Your task to perform on an android device: turn on sleep mode Image 0: 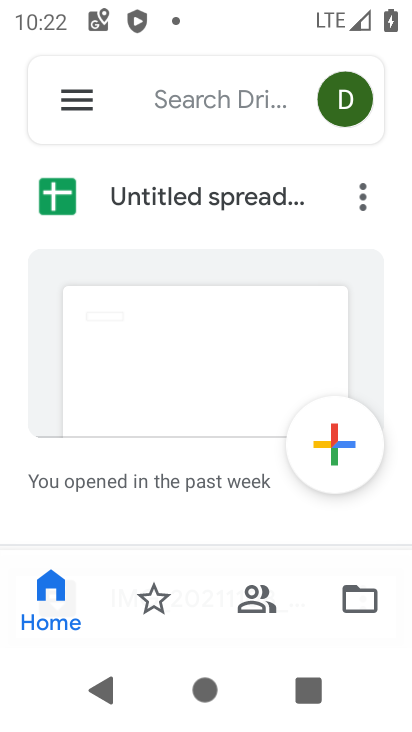
Step 0: press home button
Your task to perform on an android device: turn on sleep mode Image 1: 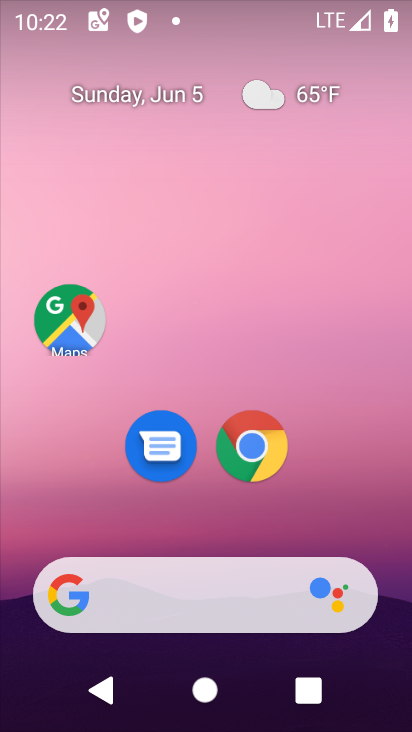
Step 1: drag from (212, 536) to (188, 160)
Your task to perform on an android device: turn on sleep mode Image 2: 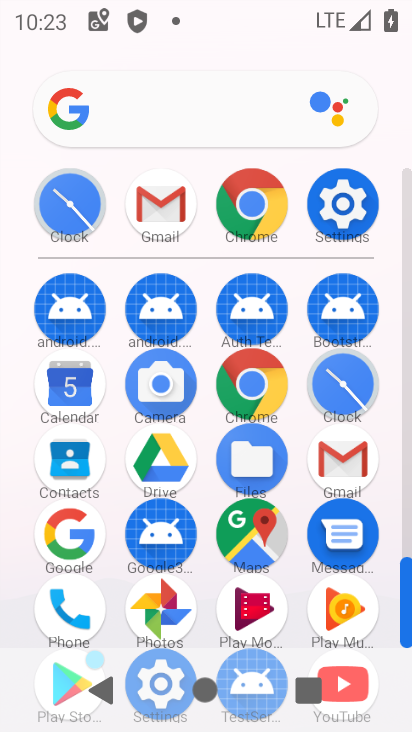
Step 2: click (344, 207)
Your task to perform on an android device: turn on sleep mode Image 3: 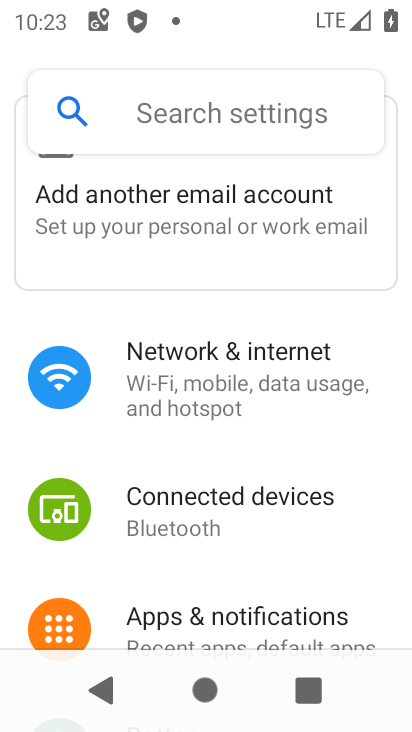
Step 3: drag from (221, 570) to (212, 382)
Your task to perform on an android device: turn on sleep mode Image 4: 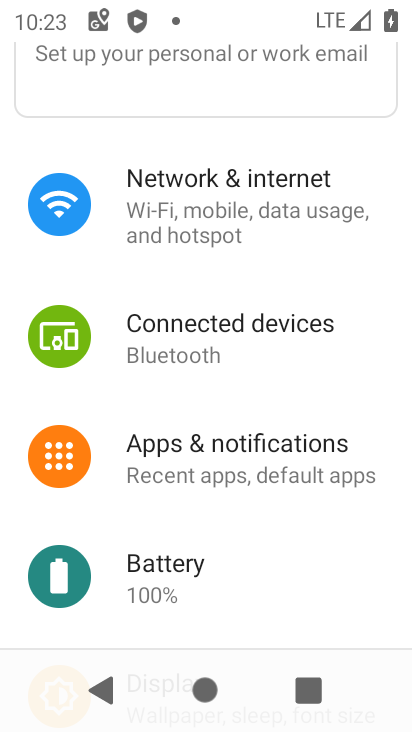
Step 4: click (190, 227)
Your task to perform on an android device: turn on sleep mode Image 5: 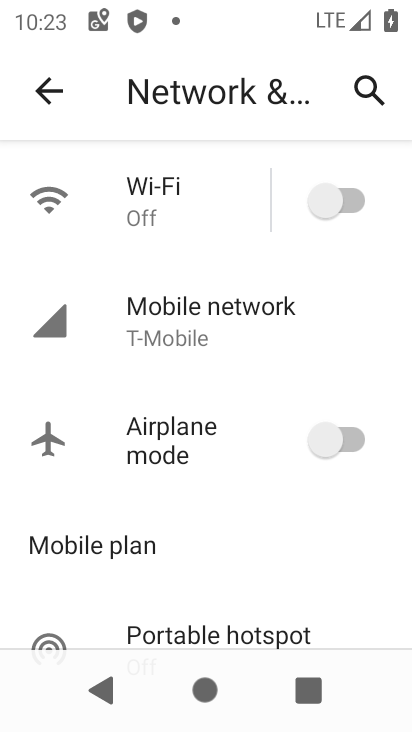
Step 5: task complete